Your task to perform on an android device: Open ESPN.com Image 0: 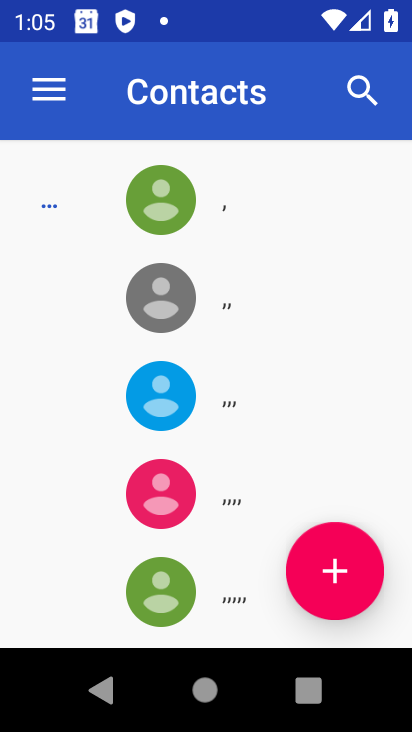
Step 0: press back button
Your task to perform on an android device: Open ESPN.com Image 1: 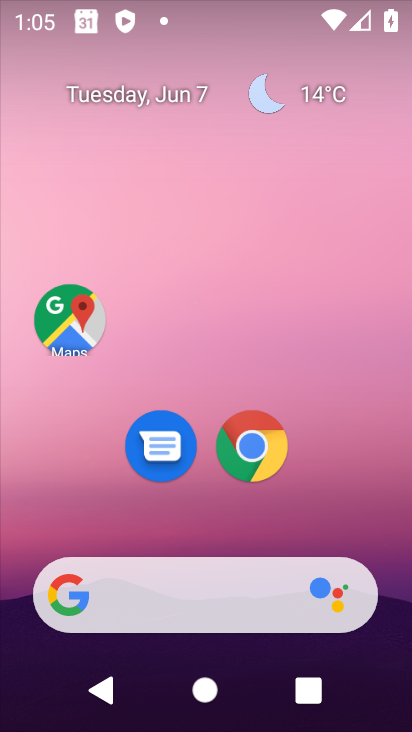
Step 1: drag from (396, 600) to (300, 31)
Your task to perform on an android device: Open ESPN.com Image 2: 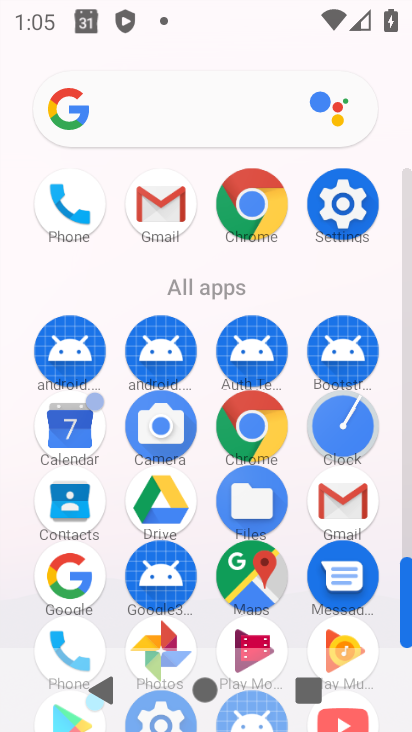
Step 2: click (253, 197)
Your task to perform on an android device: Open ESPN.com Image 3: 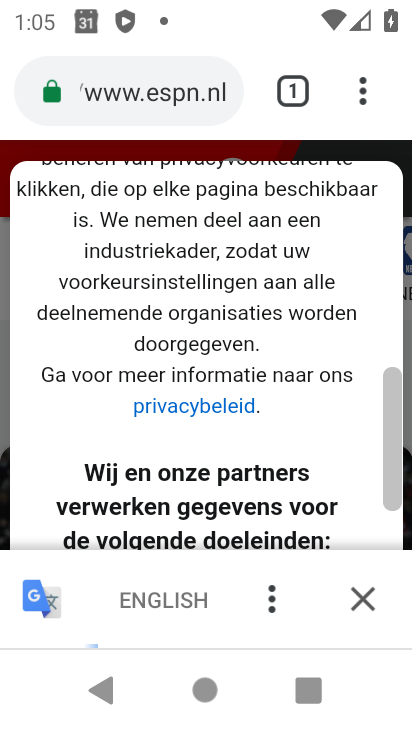
Step 3: task complete